Your task to perform on an android device: change notification settings in the gmail app Image 0: 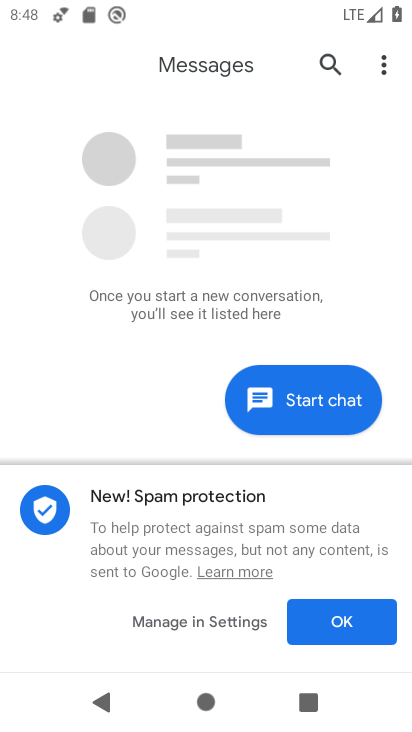
Step 0: press home button
Your task to perform on an android device: change notification settings in the gmail app Image 1: 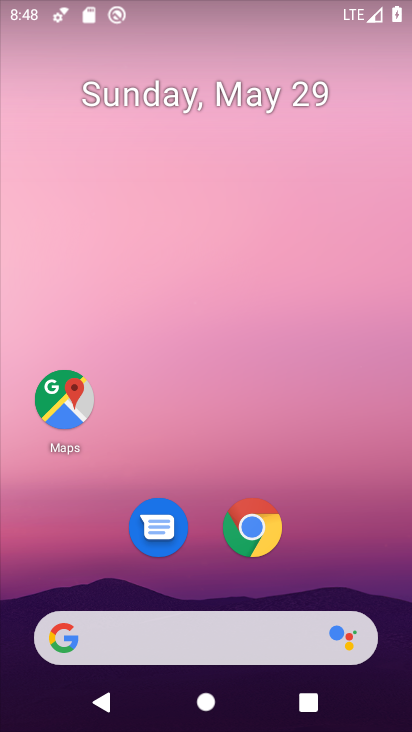
Step 1: drag from (203, 593) to (215, 72)
Your task to perform on an android device: change notification settings in the gmail app Image 2: 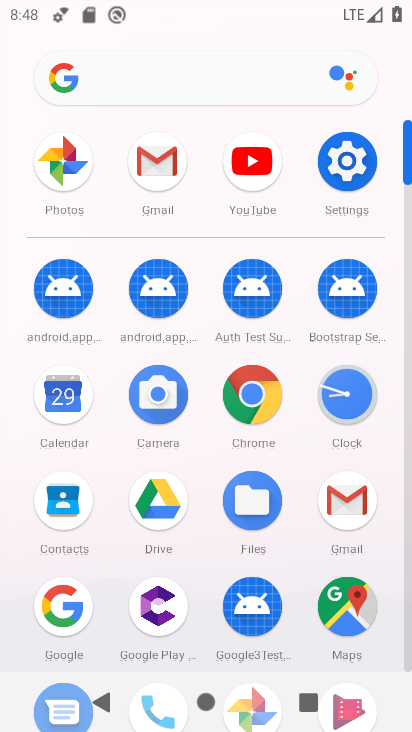
Step 2: click (153, 151)
Your task to perform on an android device: change notification settings in the gmail app Image 3: 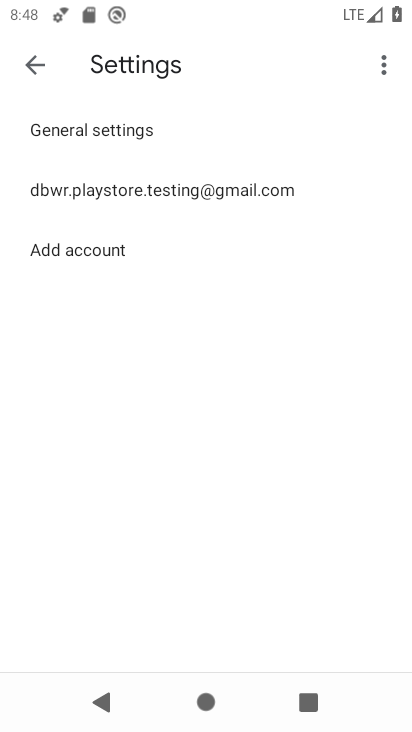
Step 3: click (169, 126)
Your task to perform on an android device: change notification settings in the gmail app Image 4: 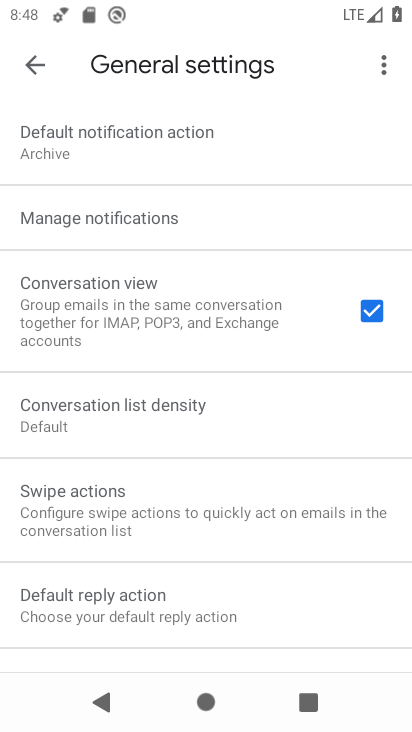
Step 4: click (197, 217)
Your task to perform on an android device: change notification settings in the gmail app Image 5: 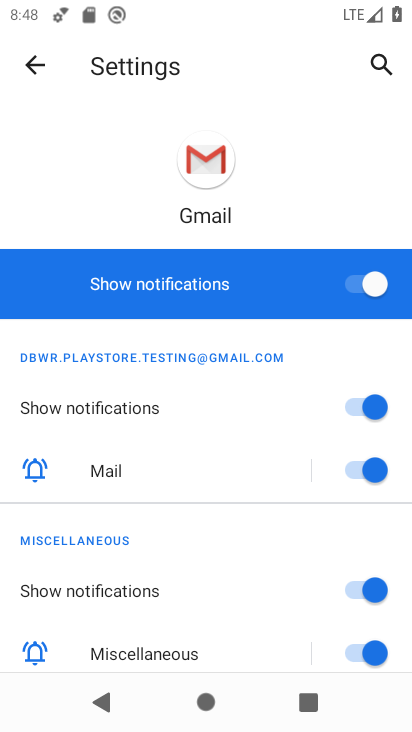
Step 5: click (359, 284)
Your task to perform on an android device: change notification settings in the gmail app Image 6: 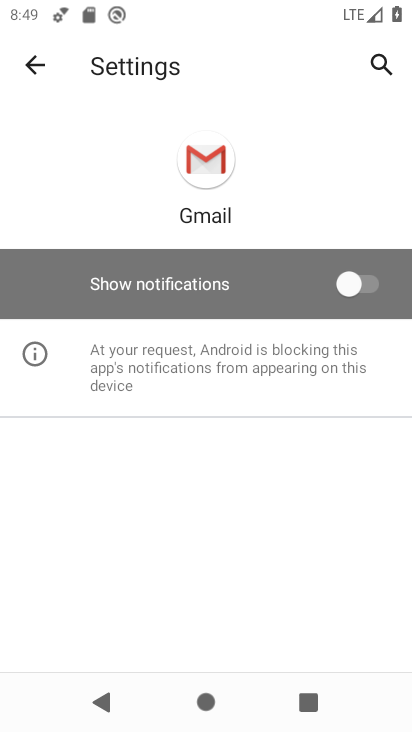
Step 6: task complete